Your task to perform on an android device: Open notification settings Image 0: 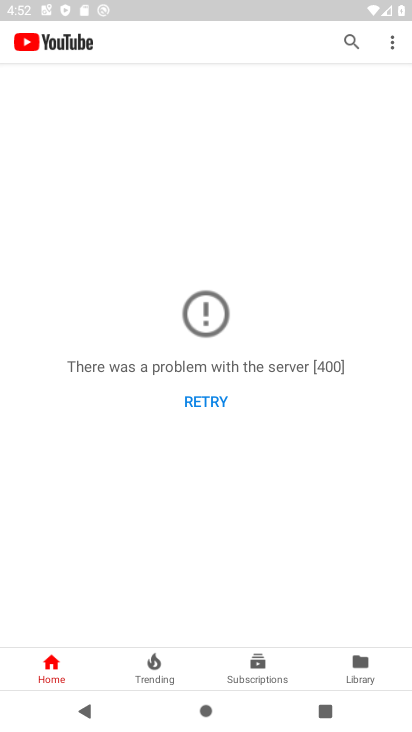
Step 0: press home button
Your task to perform on an android device: Open notification settings Image 1: 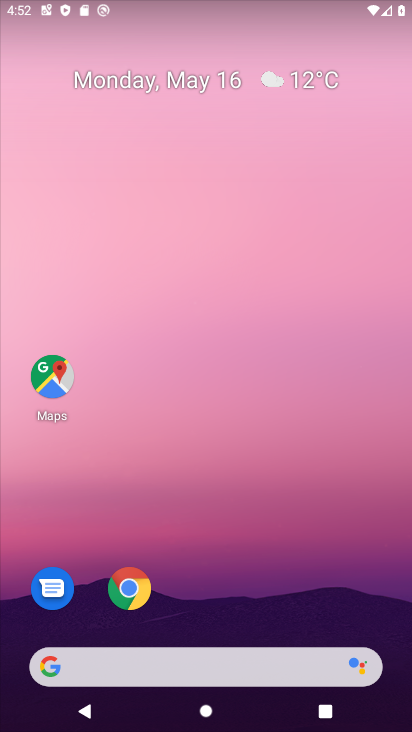
Step 1: drag from (237, 584) to (257, 56)
Your task to perform on an android device: Open notification settings Image 2: 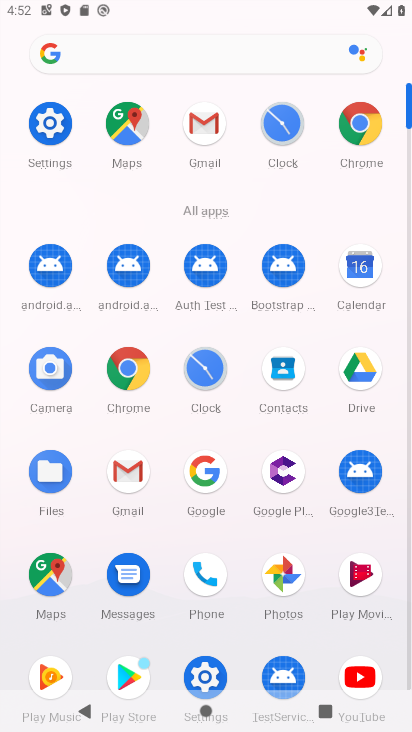
Step 2: click (44, 118)
Your task to perform on an android device: Open notification settings Image 3: 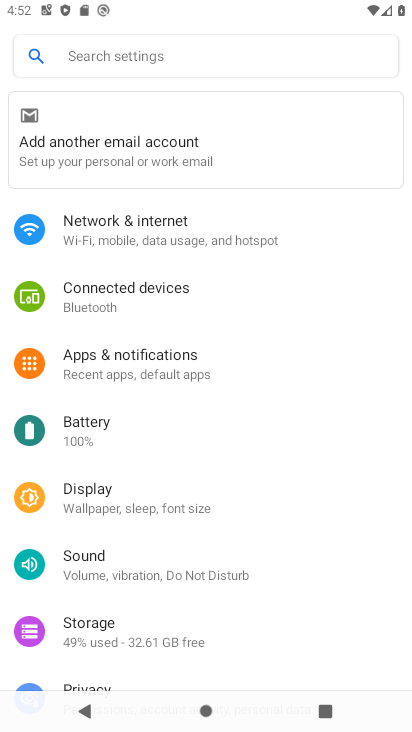
Step 3: click (121, 364)
Your task to perform on an android device: Open notification settings Image 4: 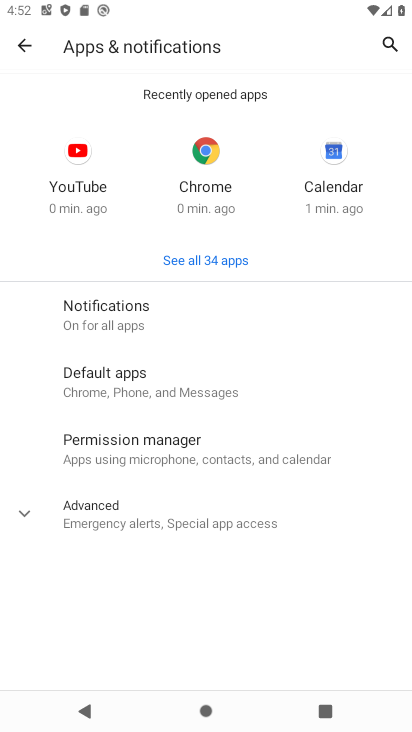
Step 4: task complete